Your task to perform on an android device: Check the weather Image 0: 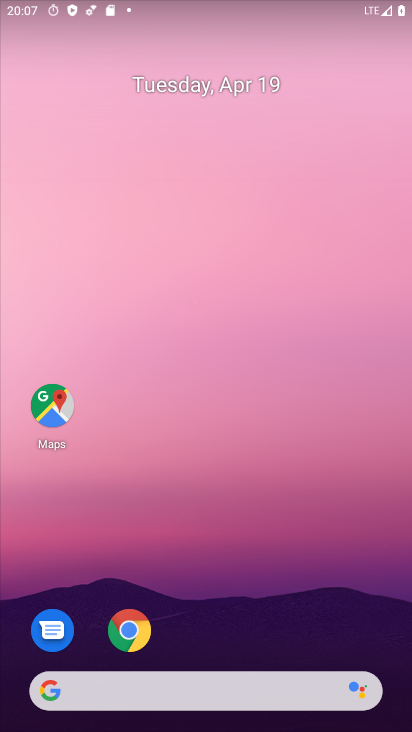
Step 0: click (216, 683)
Your task to perform on an android device: Check the weather Image 1: 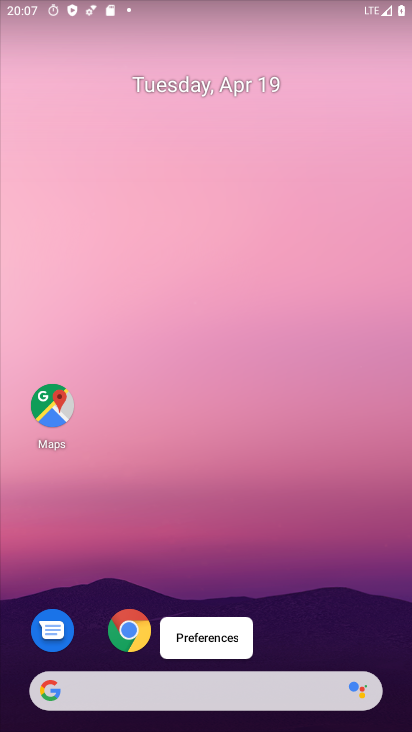
Step 1: click (215, 680)
Your task to perform on an android device: Check the weather Image 2: 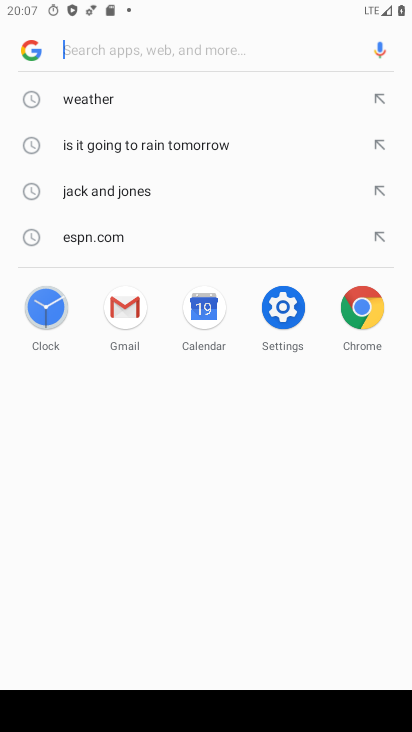
Step 2: click (131, 98)
Your task to perform on an android device: Check the weather Image 3: 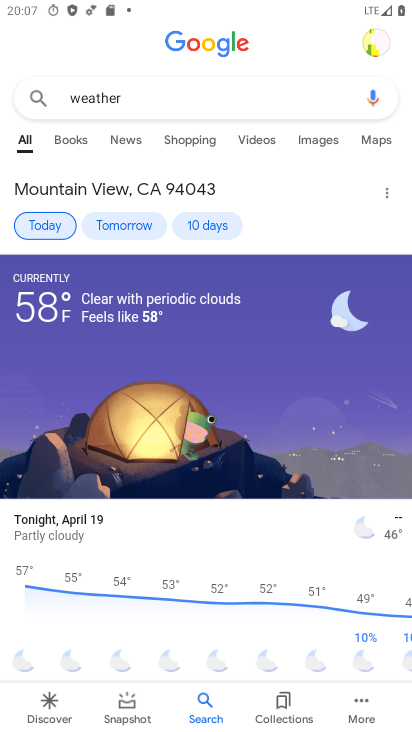
Step 3: task complete